Your task to perform on an android device: Open settings Image 0: 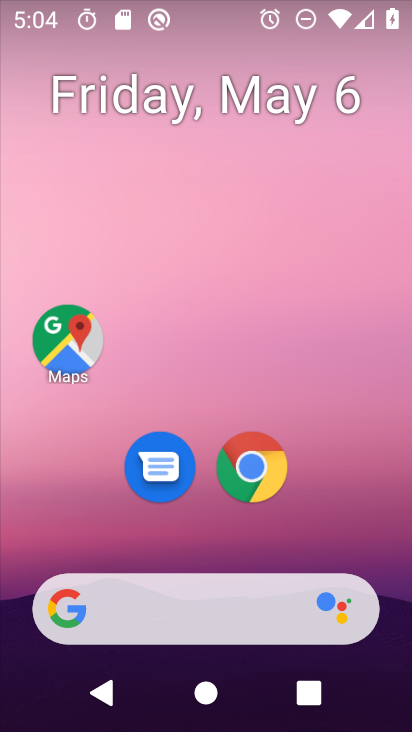
Step 0: drag from (217, 541) to (235, 97)
Your task to perform on an android device: Open settings Image 1: 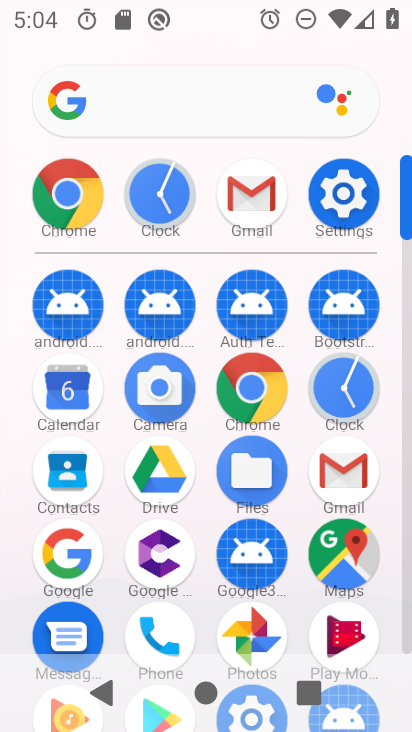
Step 1: click (345, 193)
Your task to perform on an android device: Open settings Image 2: 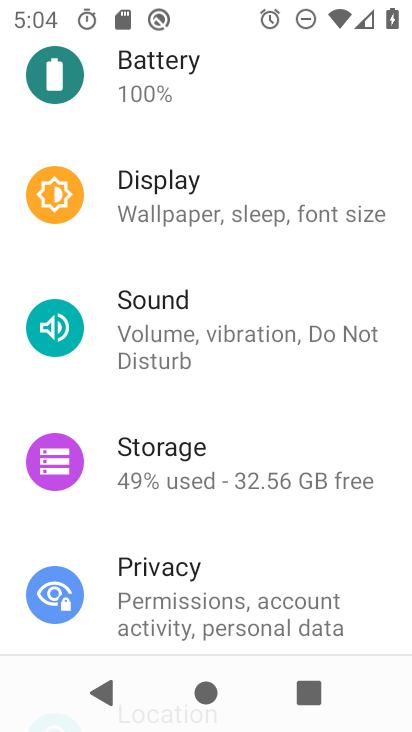
Step 2: task complete